Your task to perform on an android device: remove spam from my inbox in the gmail app Image 0: 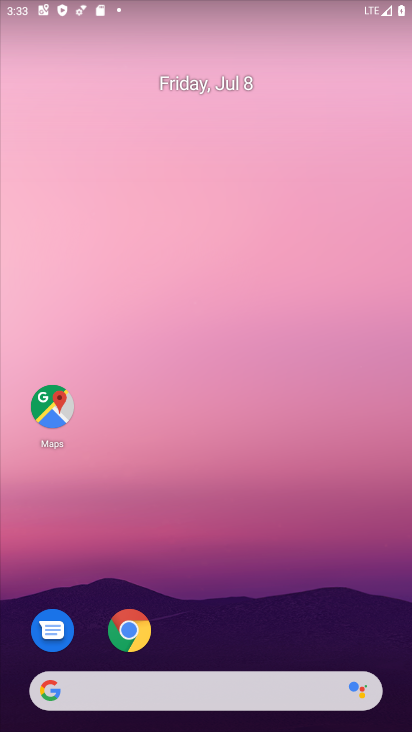
Step 0: drag from (211, 685) to (369, 2)
Your task to perform on an android device: remove spam from my inbox in the gmail app Image 1: 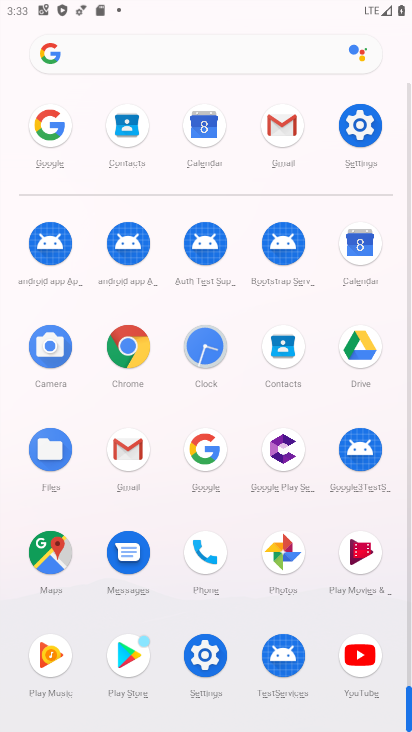
Step 1: click (285, 119)
Your task to perform on an android device: remove spam from my inbox in the gmail app Image 2: 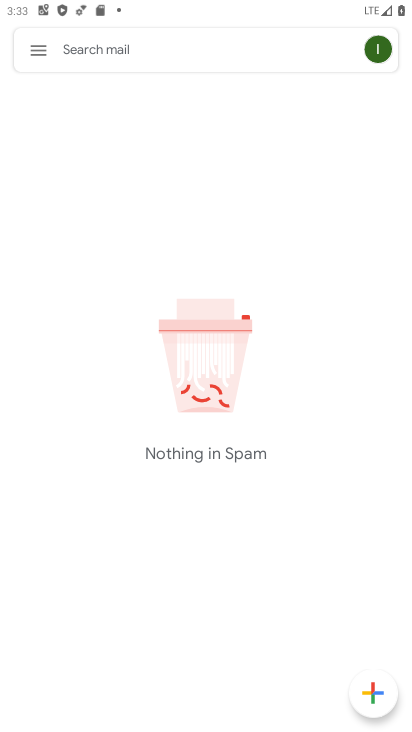
Step 2: click (38, 53)
Your task to perform on an android device: remove spam from my inbox in the gmail app Image 3: 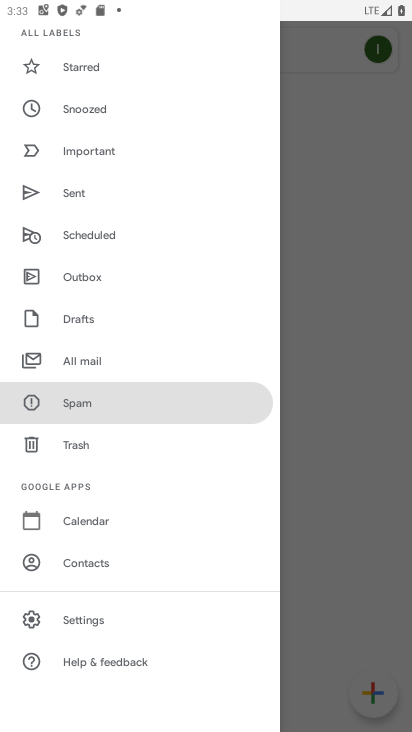
Step 3: click (104, 409)
Your task to perform on an android device: remove spam from my inbox in the gmail app Image 4: 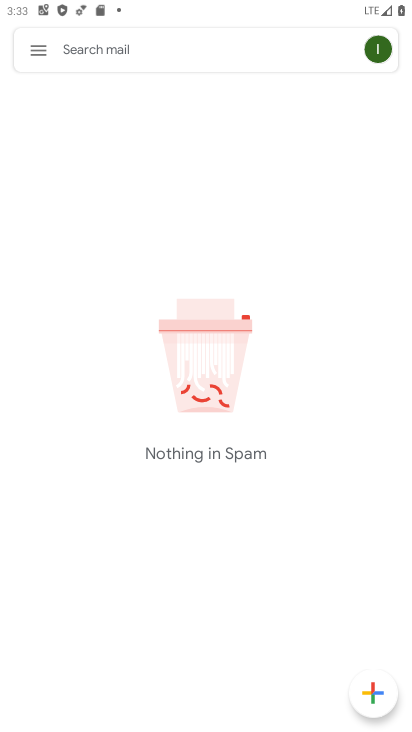
Step 4: task complete